Your task to perform on an android device: open a new tab in the chrome app Image 0: 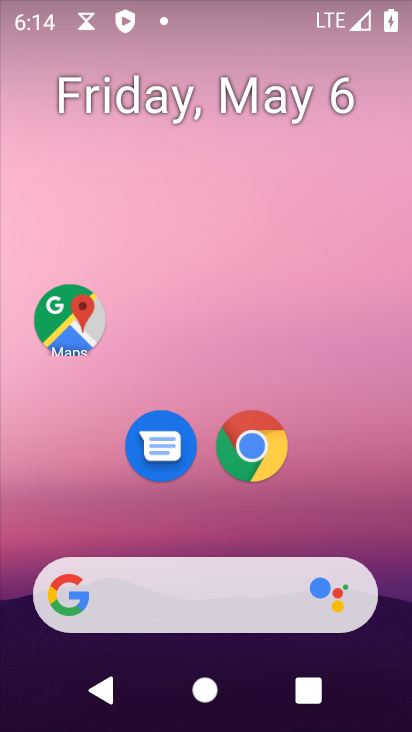
Step 0: press home button
Your task to perform on an android device: open a new tab in the chrome app Image 1: 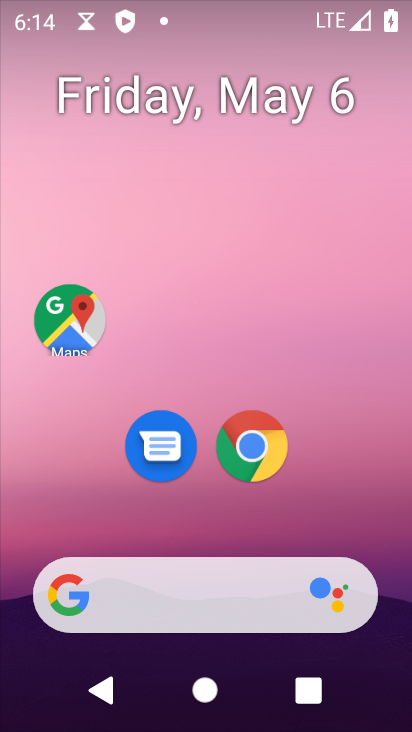
Step 1: drag from (336, 514) to (319, 210)
Your task to perform on an android device: open a new tab in the chrome app Image 2: 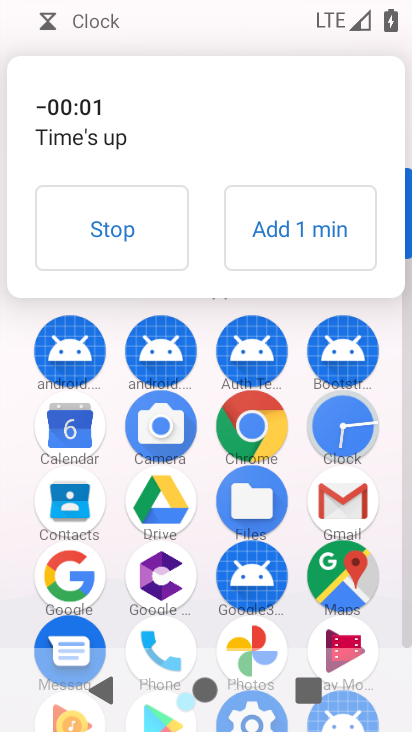
Step 2: click (63, 227)
Your task to perform on an android device: open a new tab in the chrome app Image 3: 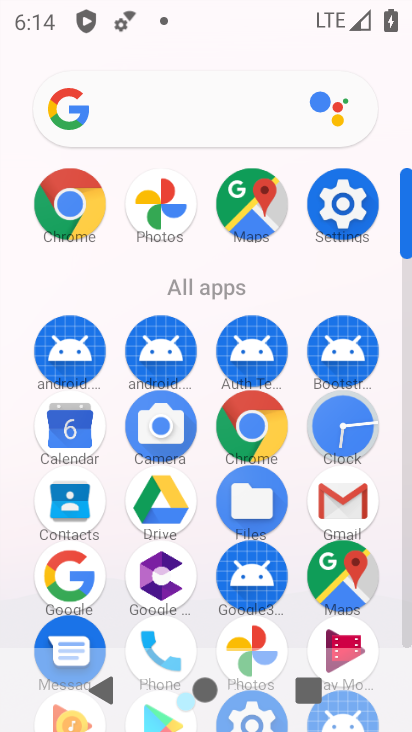
Step 3: click (80, 224)
Your task to perform on an android device: open a new tab in the chrome app Image 4: 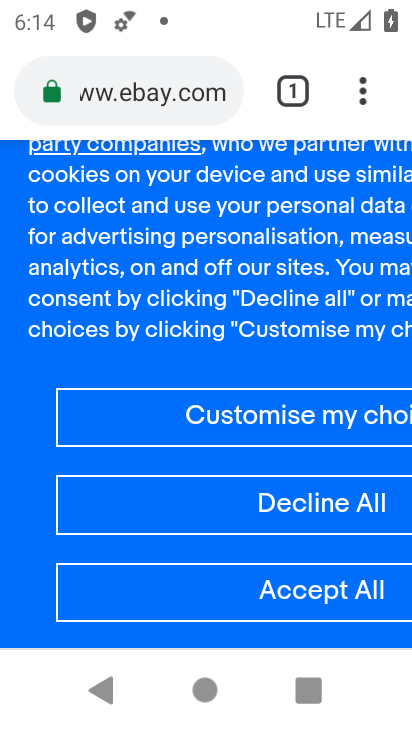
Step 4: click (303, 105)
Your task to perform on an android device: open a new tab in the chrome app Image 5: 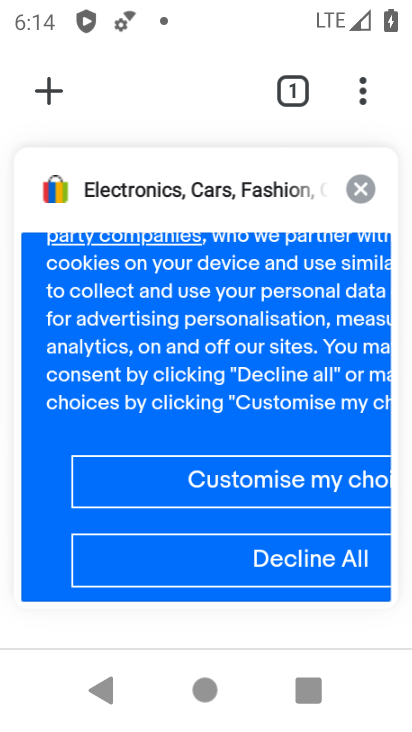
Step 5: click (52, 87)
Your task to perform on an android device: open a new tab in the chrome app Image 6: 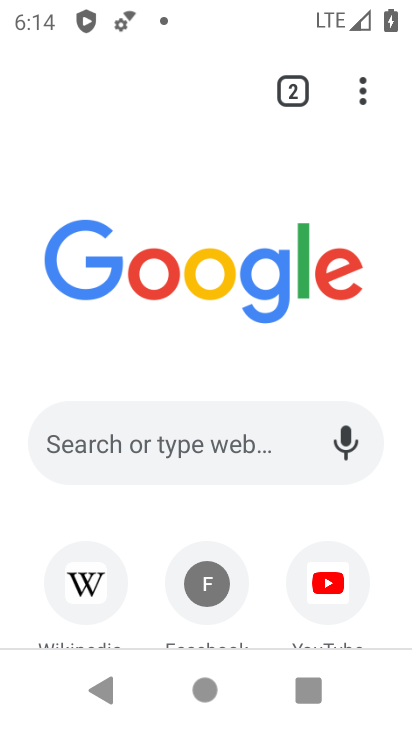
Step 6: task complete